Your task to perform on an android device: Toggle the flashlight Image 0: 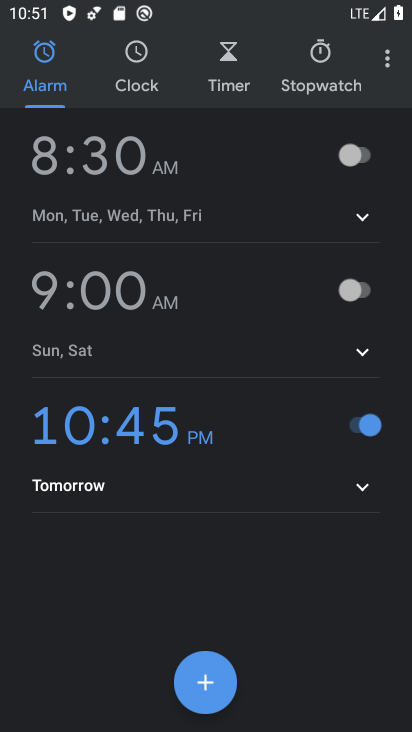
Step 0: press home button
Your task to perform on an android device: Toggle the flashlight Image 1: 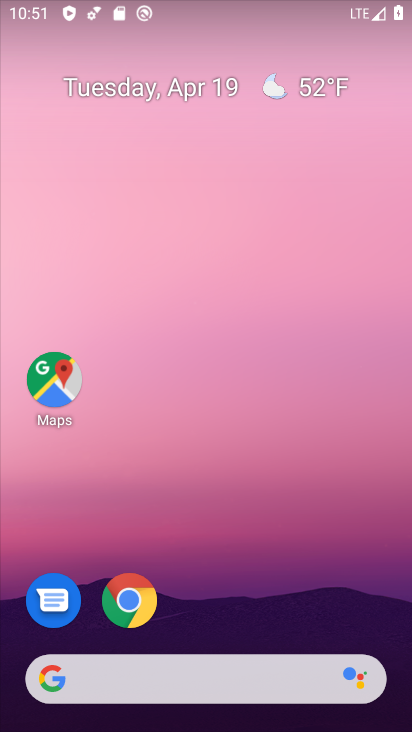
Step 1: drag from (191, 641) to (188, 1)
Your task to perform on an android device: Toggle the flashlight Image 2: 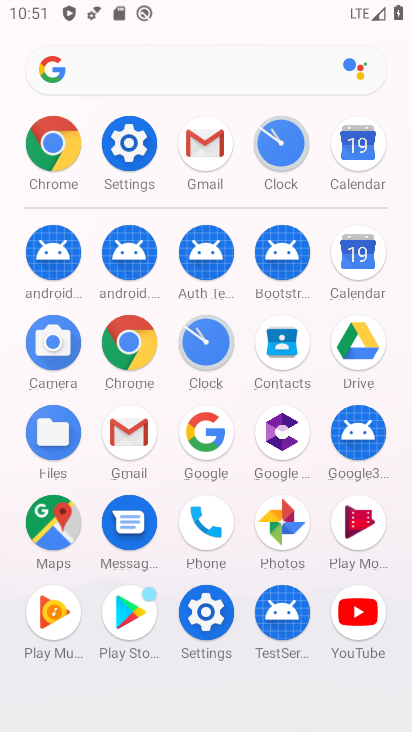
Step 2: click (124, 152)
Your task to perform on an android device: Toggle the flashlight Image 3: 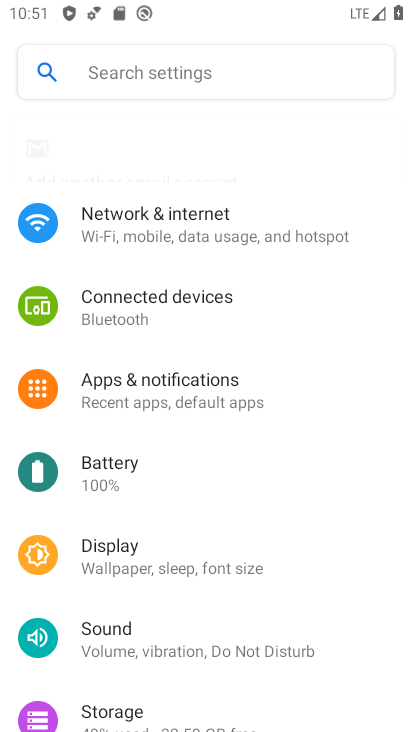
Step 3: click (145, 63)
Your task to perform on an android device: Toggle the flashlight Image 4: 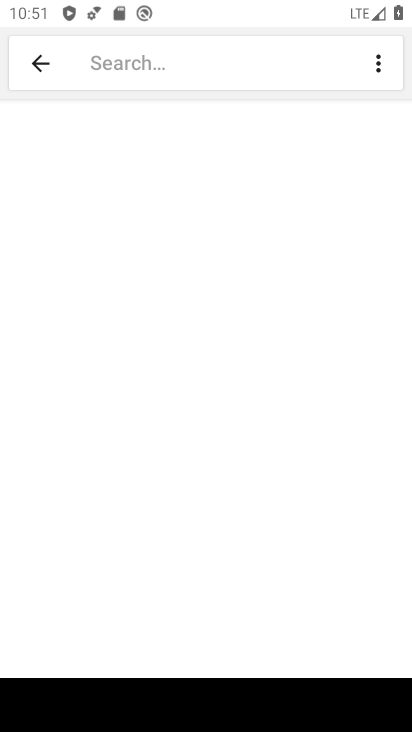
Step 4: type "flashlight"
Your task to perform on an android device: Toggle the flashlight Image 5: 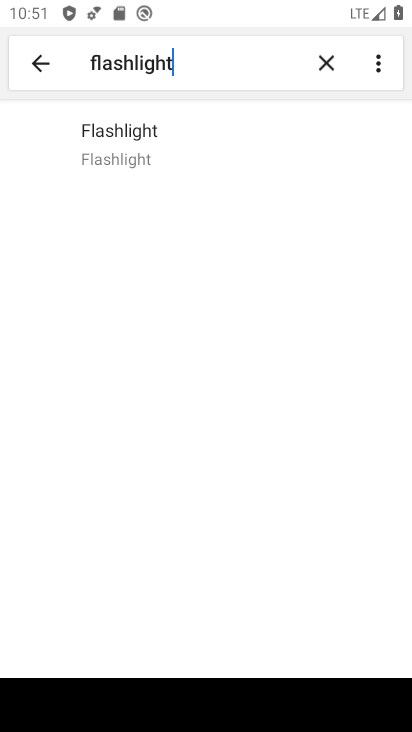
Step 5: click (168, 144)
Your task to perform on an android device: Toggle the flashlight Image 6: 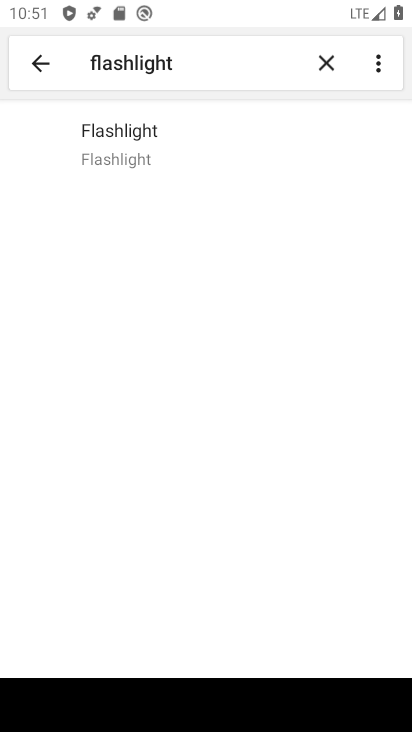
Step 6: task complete